Your task to perform on an android device: What's the weather going to be this weekend? Image 0: 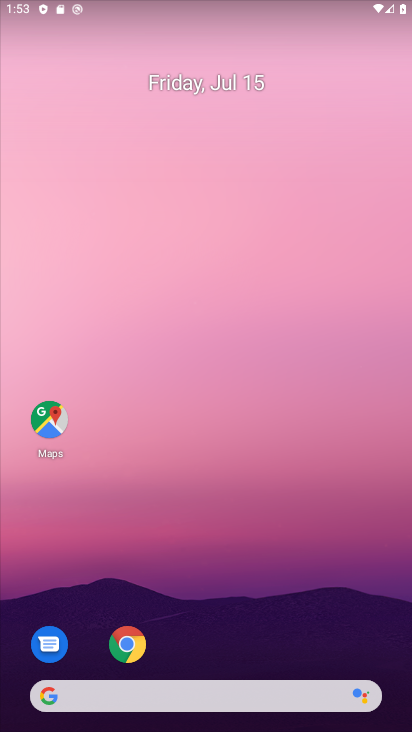
Step 0: click (191, 685)
Your task to perform on an android device: What's the weather going to be this weekend? Image 1: 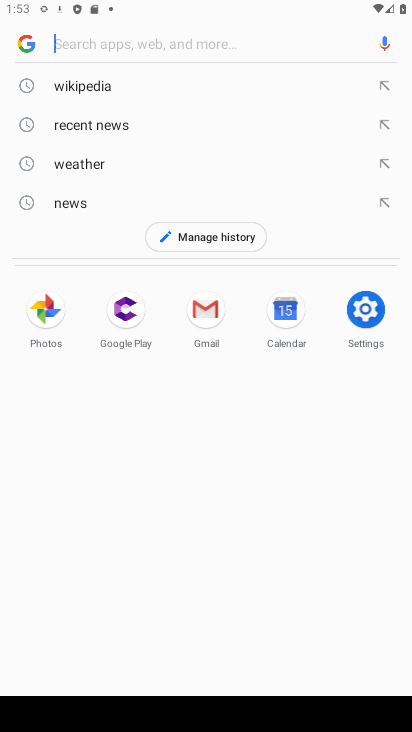
Step 1: type "What's the weather going to be this weekend?"
Your task to perform on an android device: What's the weather going to be this weekend? Image 2: 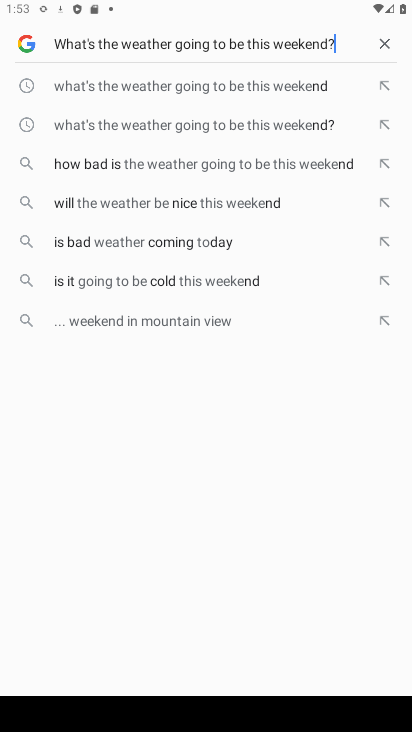
Step 2: type ""
Your task to perform on an android device: What's the weather going to be this weekend? Image 3: 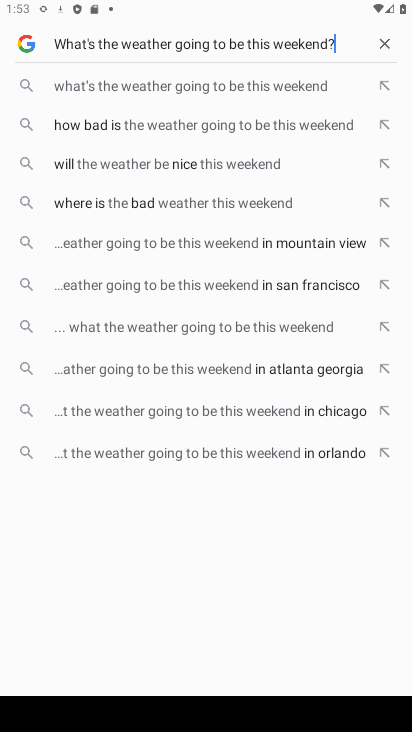
Step 3: click (248, 86)
Your task to perform on an android device: What's the weather going to be this weekend? Image 4: 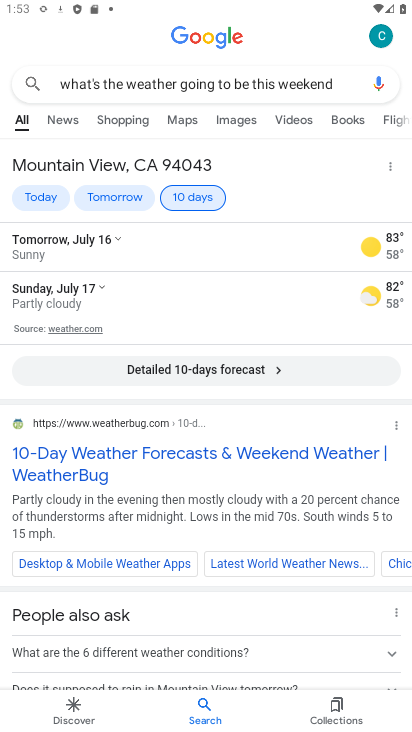
Step 4: task complete